Your task to perform on an android device: install app "DuckDuckGo Privacy Browser" Image 0: 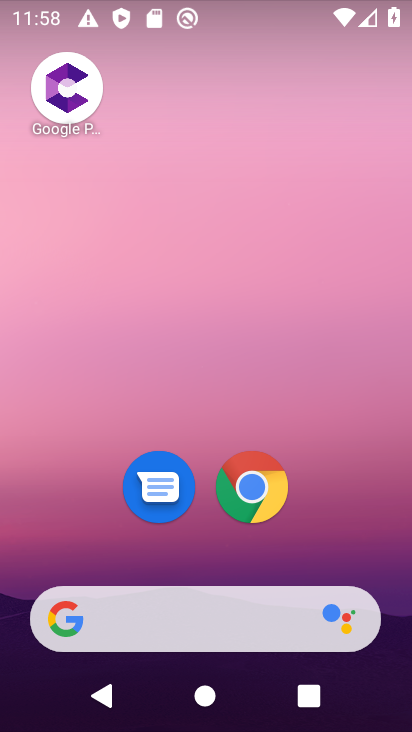
Step 0: drag from (206, 517) to (245, 1)
Your task to perform on an android device: install app "DuckDuckGo Privacy Browser" Image 1: 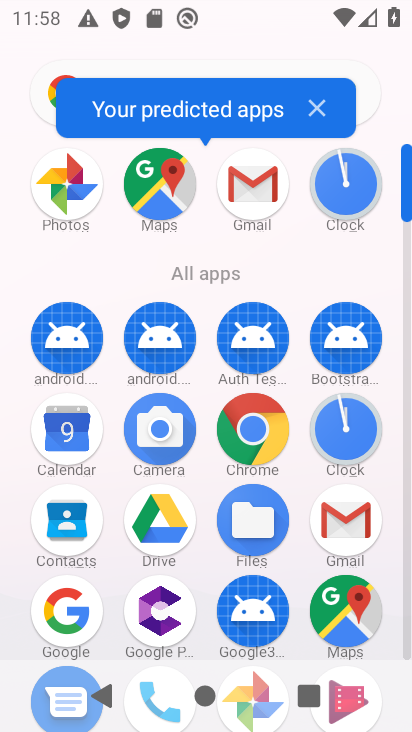
Step 1: drag from (201, 494) to (217, 245)
Your task to perform on an android device: install app "DuckDuckGo Privacy Browser" Image 2: 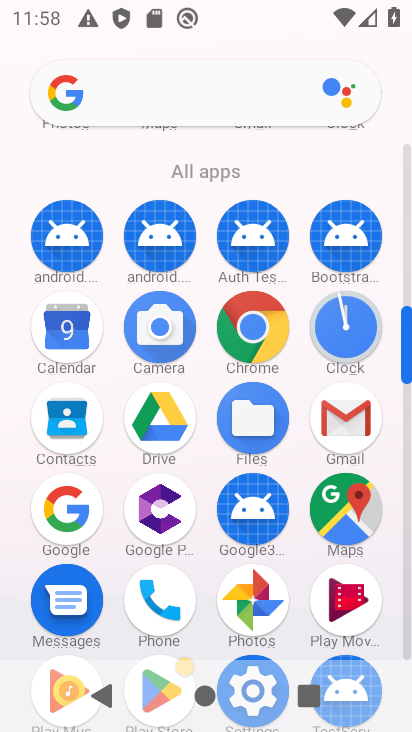
Step 2: drag from (208, 569) to (206, 252)
Your task to perform on an android device: install app "DuckDuckGo Privacy Browser" Image 3: 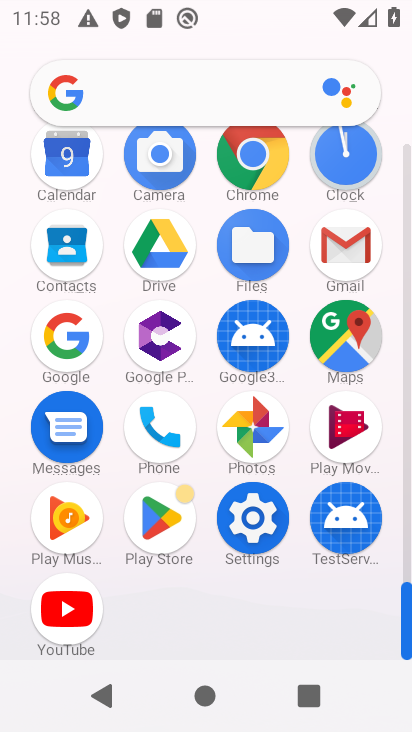
Step 3: click (165, 530)
Your task to perform on an android device: install app "DuckDuckGo Privacy Browser" Image 4: 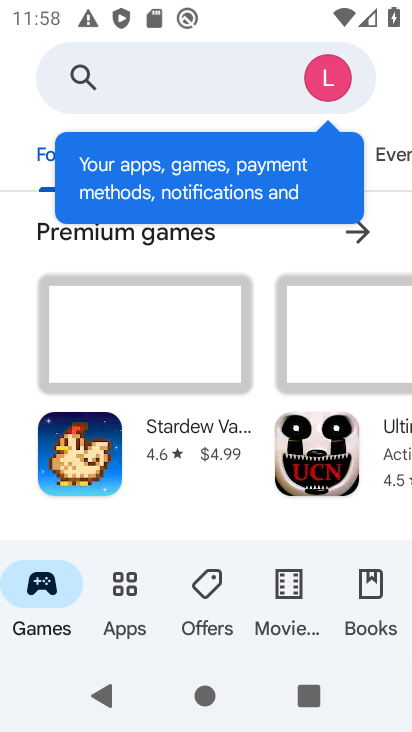
Step 4: click (211, 70)
Your task to perform on an android device: install app "DuckDuckGo Privacy Browser" Image 5: 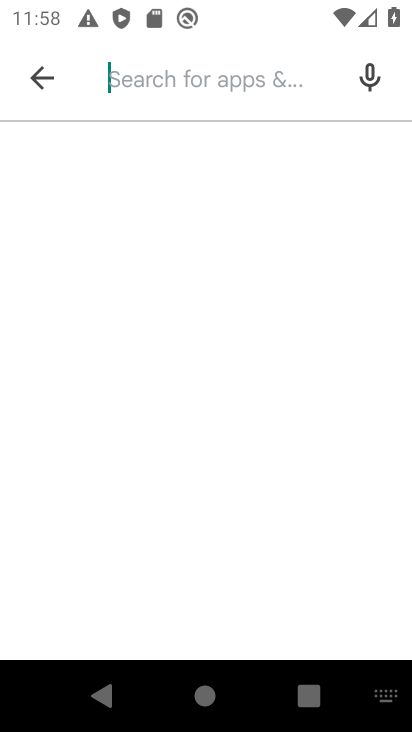
Step 5: type "duckduck go"
Your task to perform on an android device: install app "DuckDuckGo Privacy Browser" Image 6: 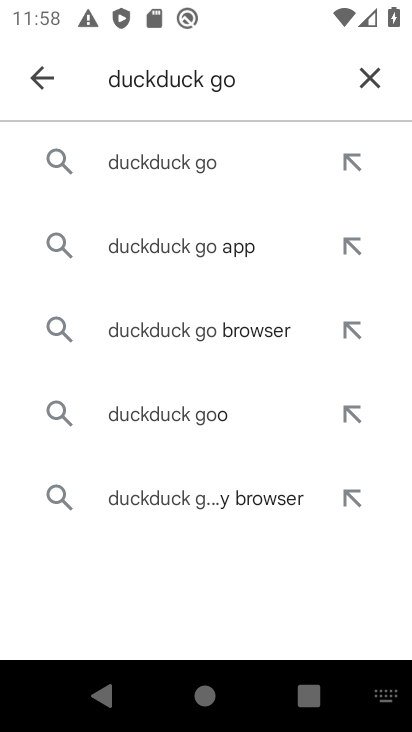
Step 6: click (140, 163)
Your task to perform on an android device: install app "DuckDuckGo Privacy Browser" Image 7: 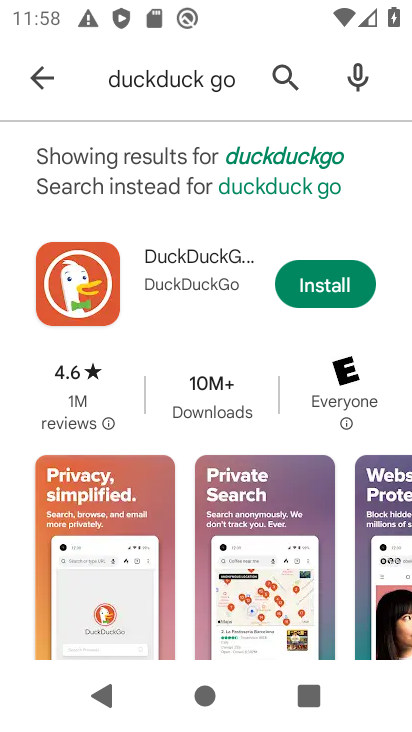
Step 7: click (332, 285)
Your task to perform on an android device: install app "DuckDuckGo Privacy Browser" Image 8: 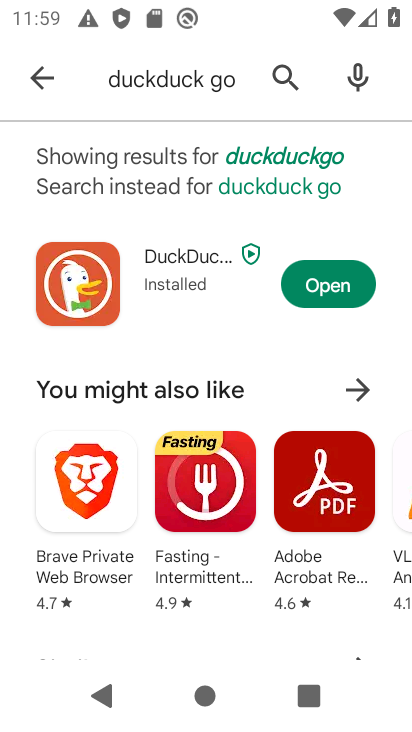
Step 8: task complete